Your task to perform on an android device: Go to privacy settings Image 0: 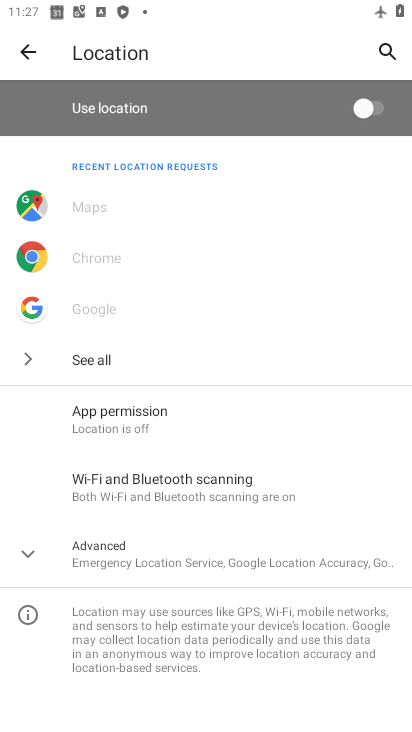
Step 0: press home button
Your task to perform on an android device: Go to privacy settings Image 1: 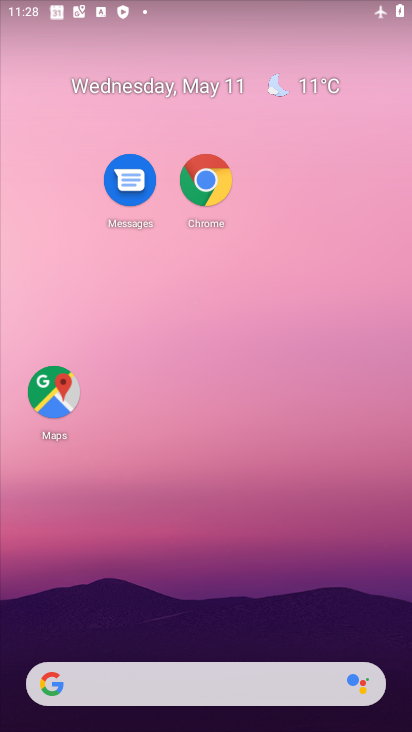
Step 1: drag from (161, 282) to (142, 75)
Your task to perform on an android device: Go to privacy settings Image 2: 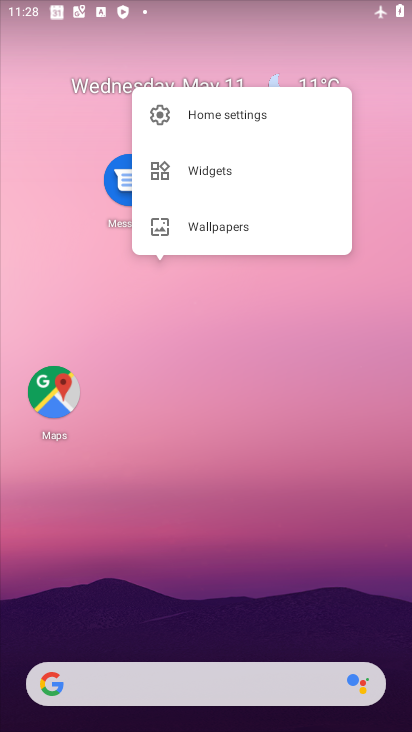
Step 2: drag from (208, 412) to (278, 101)
Your task to perform on an android device: Go to privacy settings Image 3: 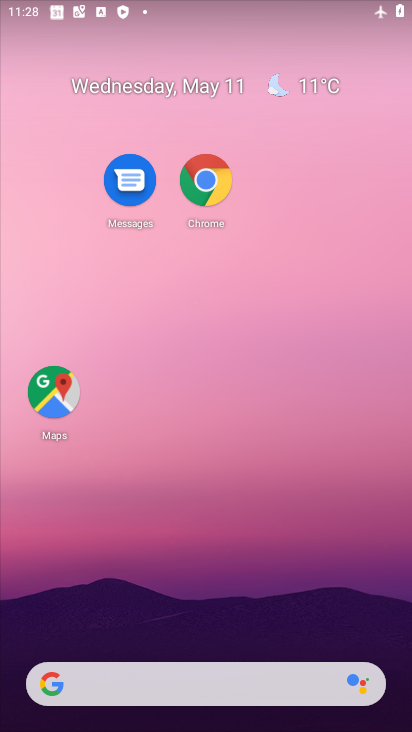
Step 3: click (230, 23)
Your task to perform on an android device: Go to privacy settings Image 4: 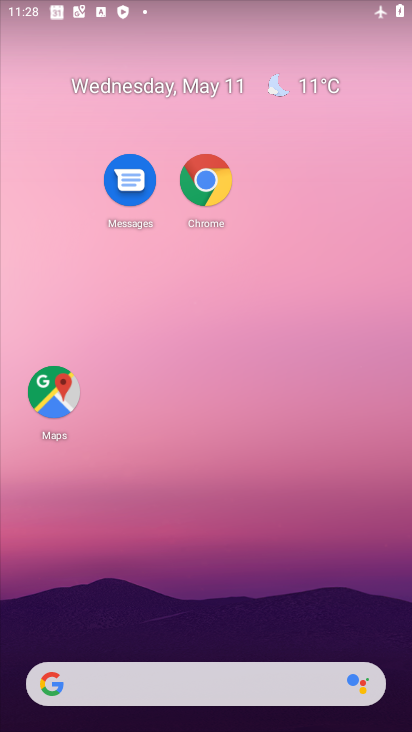
Step 4: click (223, 31)
Your task to perform on an android device: Go to privacy settings Image 5: 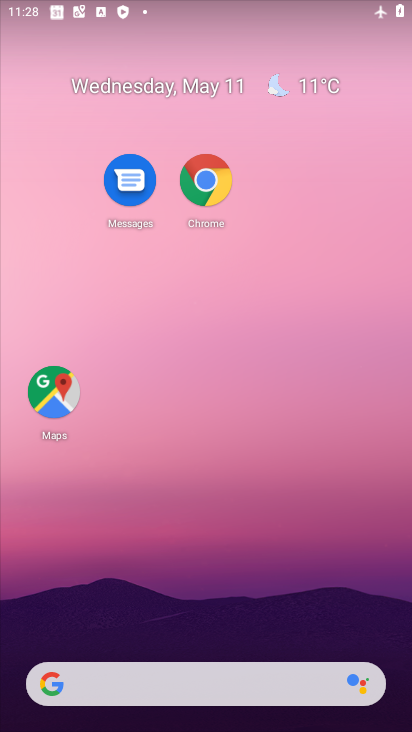
Step 5: drag from (181, 644) to (269, 121)
Your task to perform on an android device: Go to privacy settings Image 6: 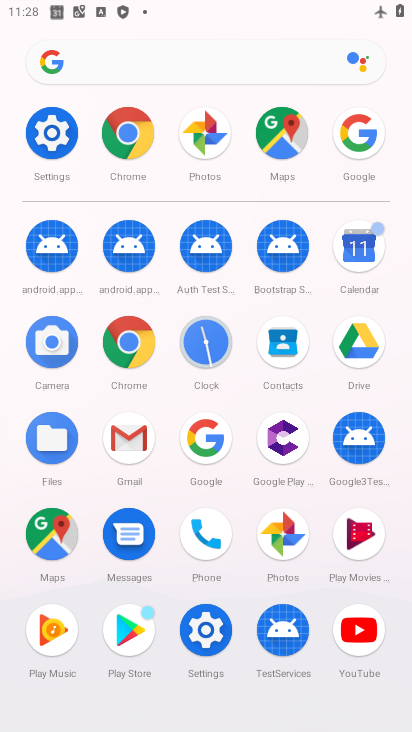
Step 6: click (35, 148)
Your task to perform on an android device: Go to privacy settings Image 7: 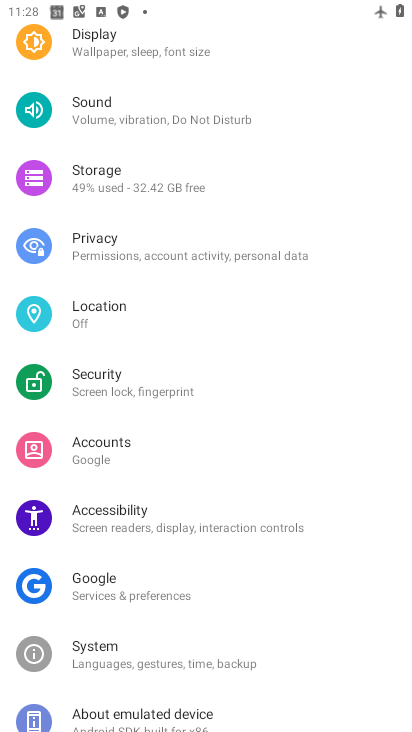
Step 7: click (131, 244)
Your task to perform on an android device: Go to privacy settings Image 8: 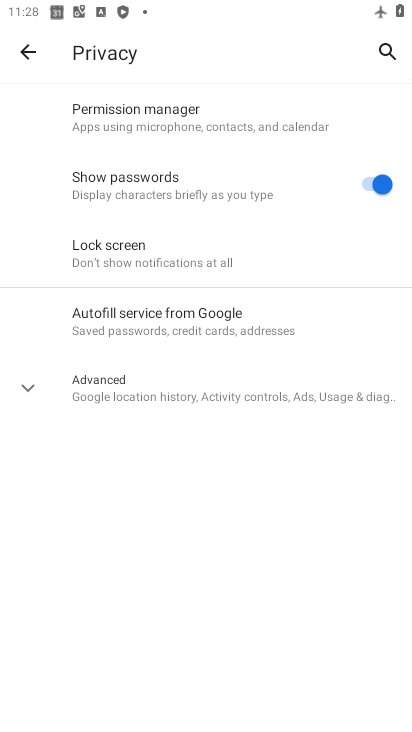
Step 8: task complete